Your task to perform on an android device: snooze an email in the gmail app Image 0: 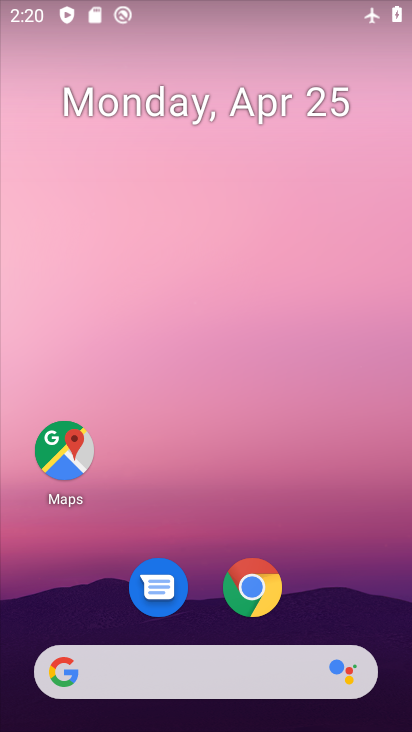
Step 0: drag from (322, 463) to (264, 105)
Your task to perform on an android device: snooze an email in the gmail app Image 1: 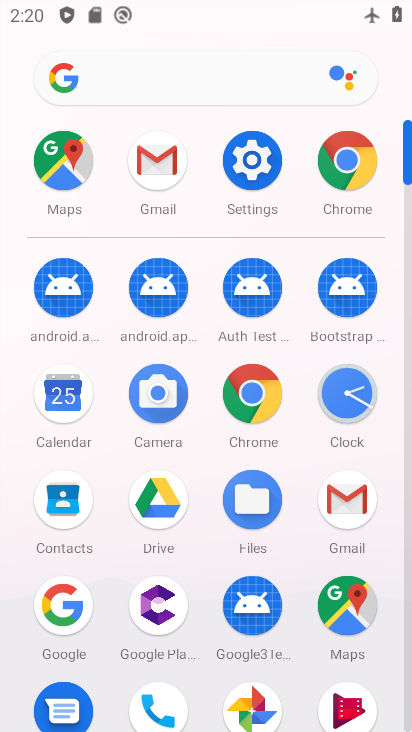
Step 1: click (157, 168)
Your task to perform on an android device: snooze an email in the gmail app Image 2: 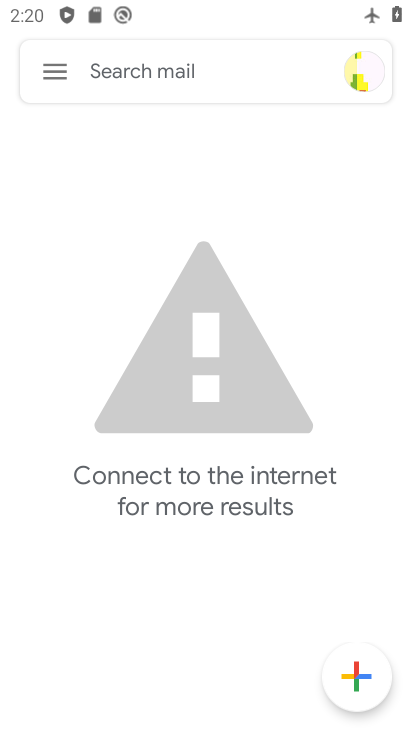
Step 2: click (51, 70)
Your task to perform on an android device: snooze an email in the gmail app Image 3: 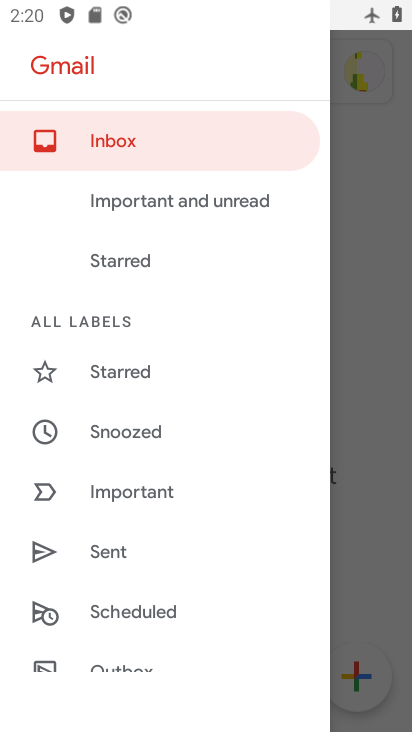
Step 3: drag from (177, 557) to (245, 101)
Your task to perform on an android device: snooze an email in the gmail app Image 4: 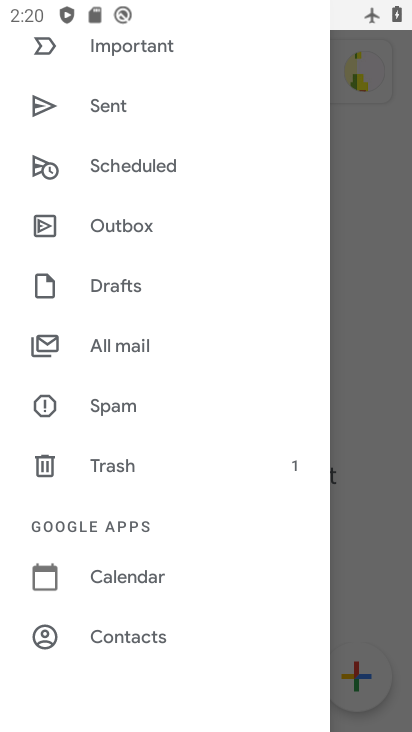
Step 4: click (138, 368)
Your task to perform on an android device: snooze an email in the gmail app Image 5: 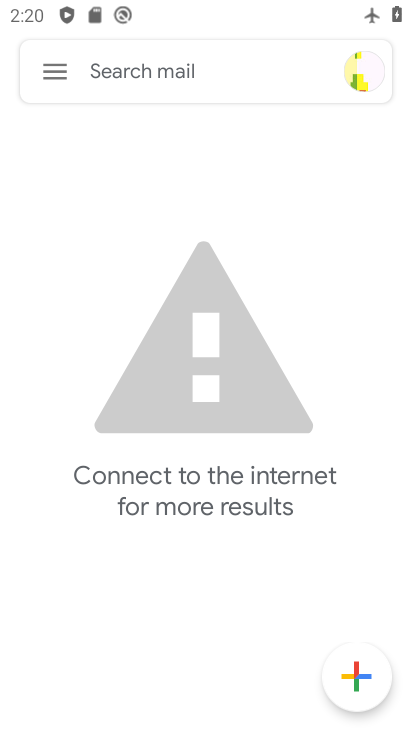
Step 5: task complete